Your task to perform on an android device: Go to Android settings Image 0: 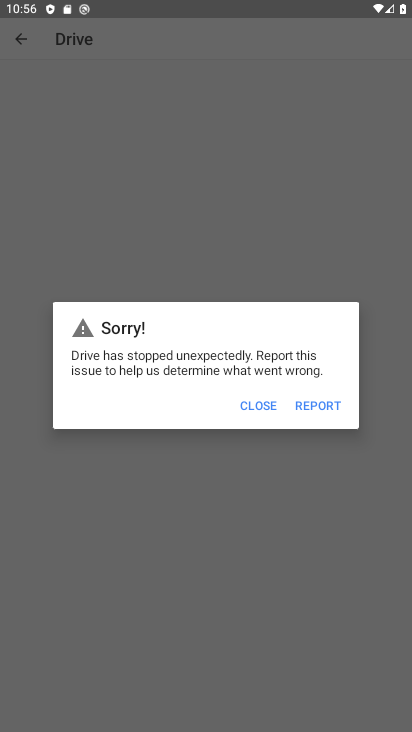
Step 0: press home button
Your task to perform on an android device: Go to Android settings Image 1: 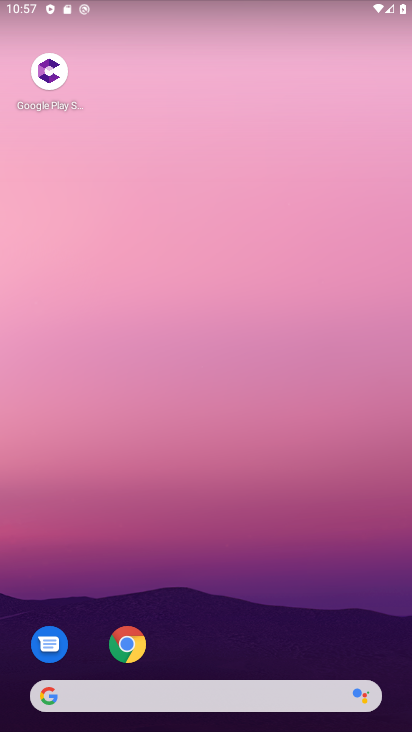
Step 1: drag from (213, 632) to (198, 346)
Your task to perform on an android device: Go to Android settings Image 2: 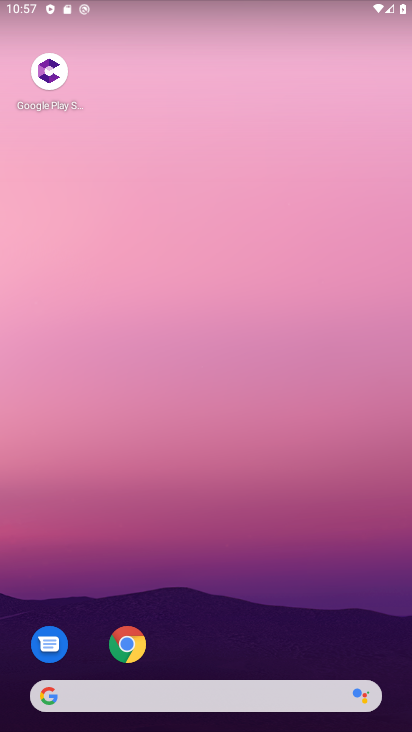
Step 2: drag from (227, 648) to (314, 216)
Your task to perform on an android device: Go to Android settings Image 3: 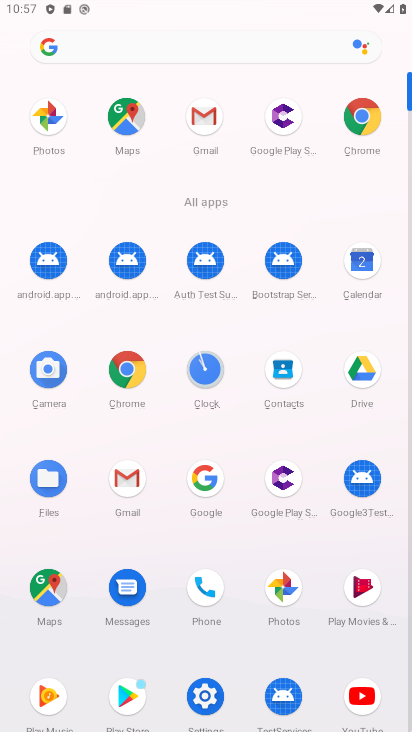
Step 3: click (203, 690)
Your task to perform on an android device: Go to Android settings Image 4: 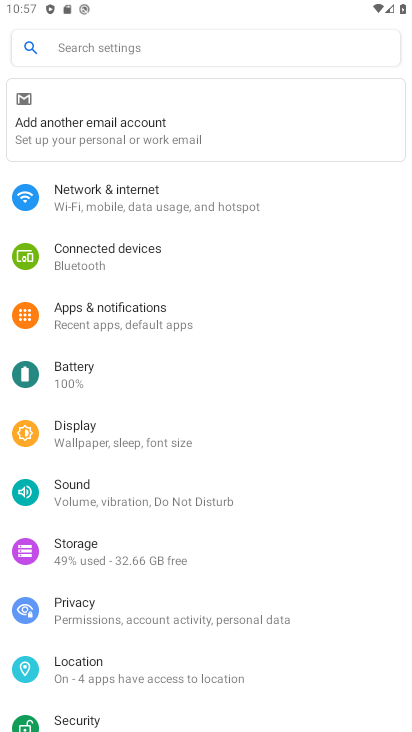
Step 4: click (159, 190)
Your task to perform on an android device: Go to Android settings Image 5: 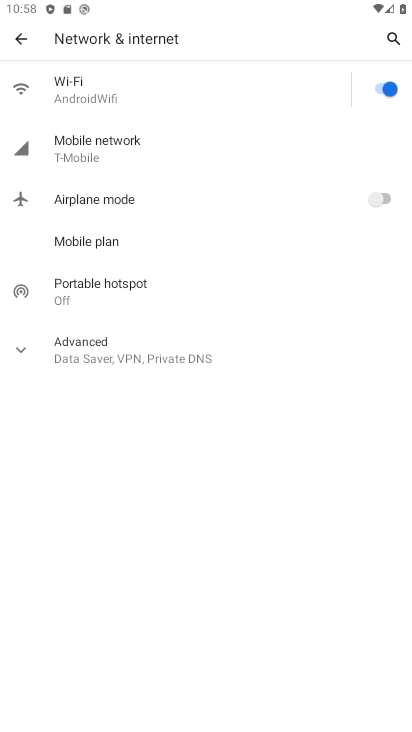
Step 5: task complete